Your task to perform on an android device: Open Chrome and go to the settings page Image 0: 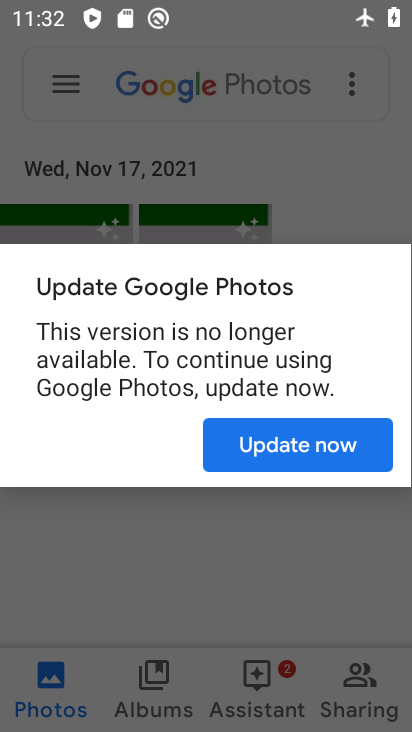
Step 0: press home button
Your task to perform on an android device: Open Chrome and go to the settings page Image 1: 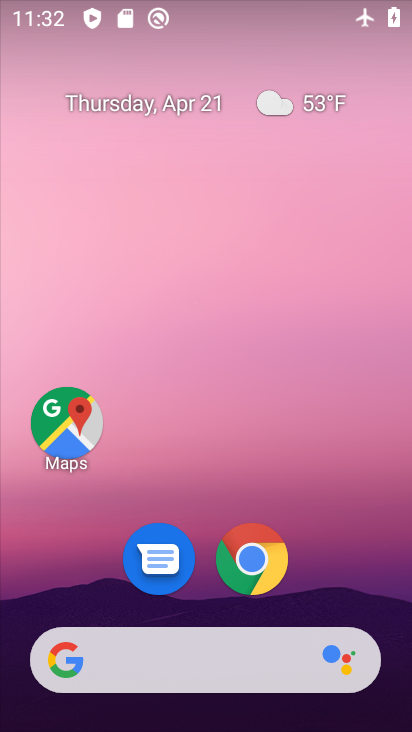
Step 1: click (253, 562)
Your task to perform on an android device: Open Chrome and go to the settings page Image 2: 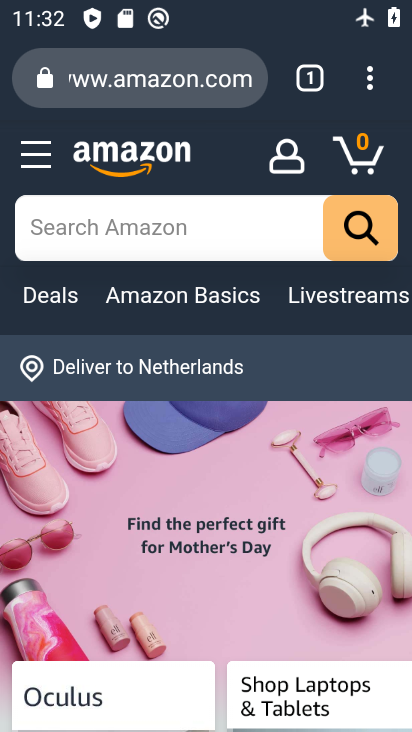
Step 2: click (369, 81)
Your task to perform on an android device: Open Chrome and go to the settings page Image 3: 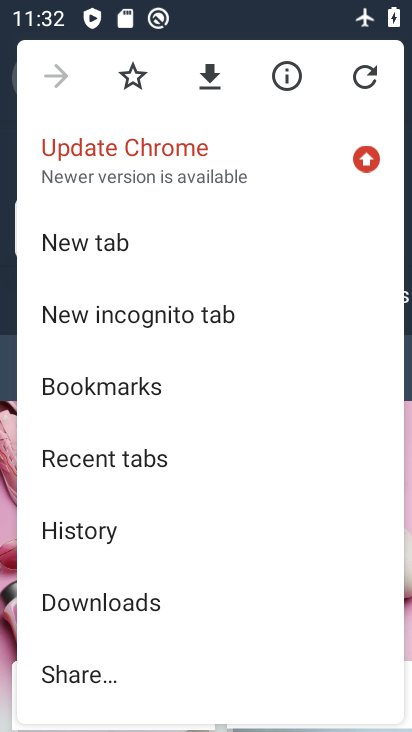
Step 3: drag from (189, 511) to (189, 289)
Your task to perform on an android device: Open Chrome and go to the settings page Image 4: 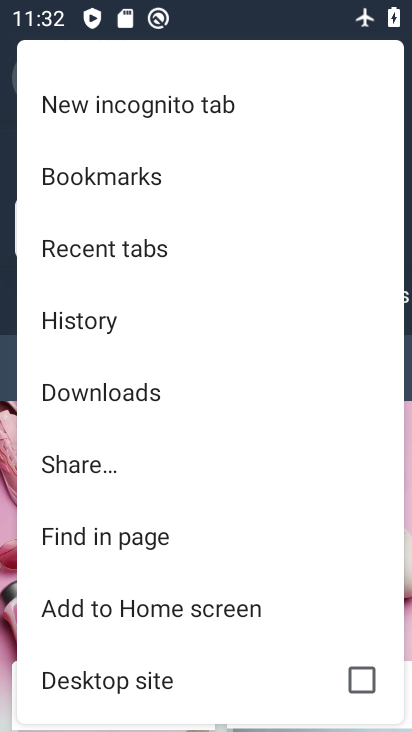
Step 4: drag from (186, 605) to (172, 322)
Your task to perform on an android device: Open Chrome and go to the settings page Image 5: 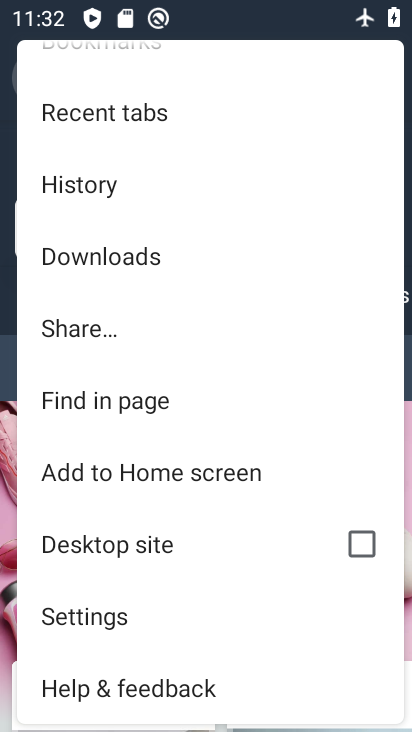
Step 5: click (96, 616)
Your task to perform on an android device: Open Chrome and go to the settings page Image 6: 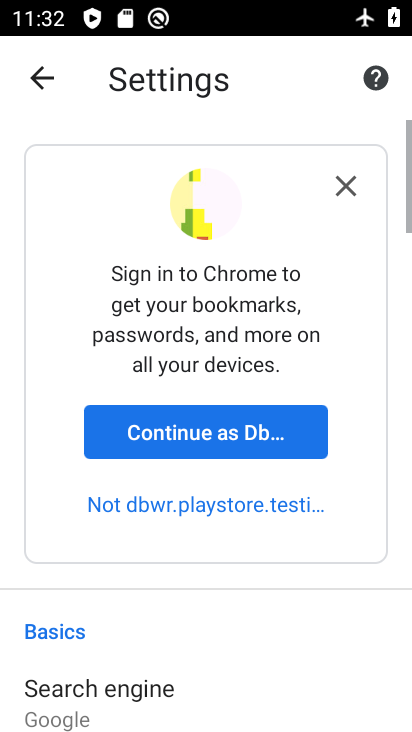
Step 6: task complete